Your task to perform on an android device: Open eBay Image 0: 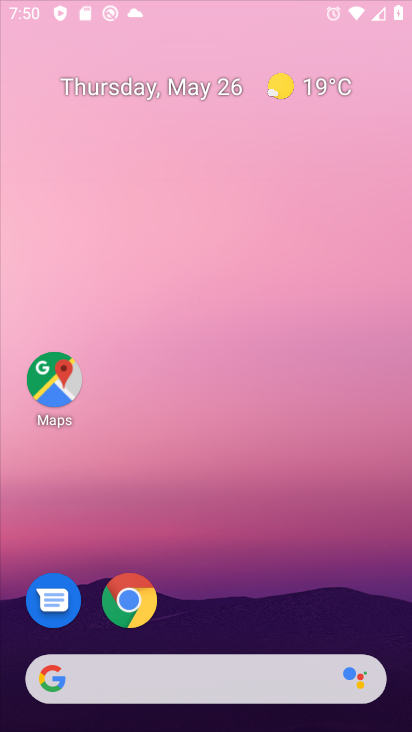
Step 0: press home button
Your task to perform on an android device: Open eBay Image 1: 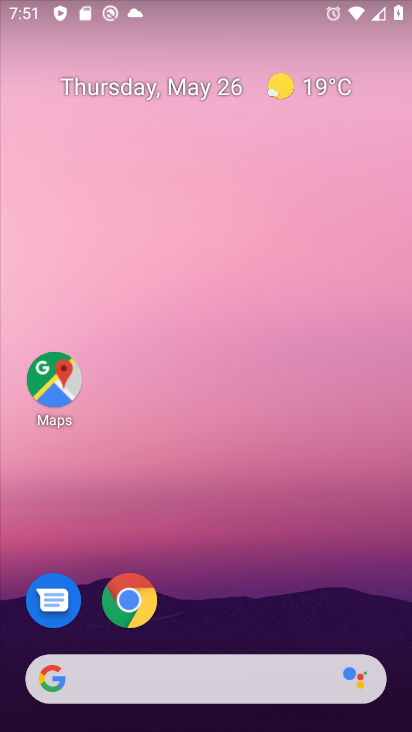
Step 1: click (48, 681)
Your task to perform on an android device: Open eBay Image 2: 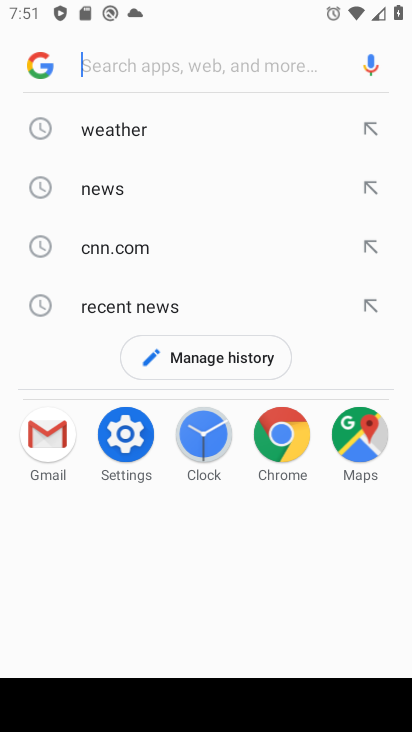
Step 2: type "eBay"
Your task to perform on an android device: Open eBay Image 3: 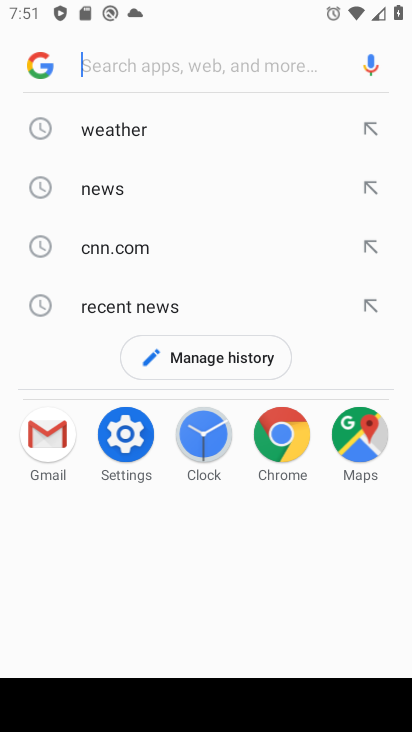
Step 3: click (167, 59)
Your task to perform on an android device: Open eBay Image 4: 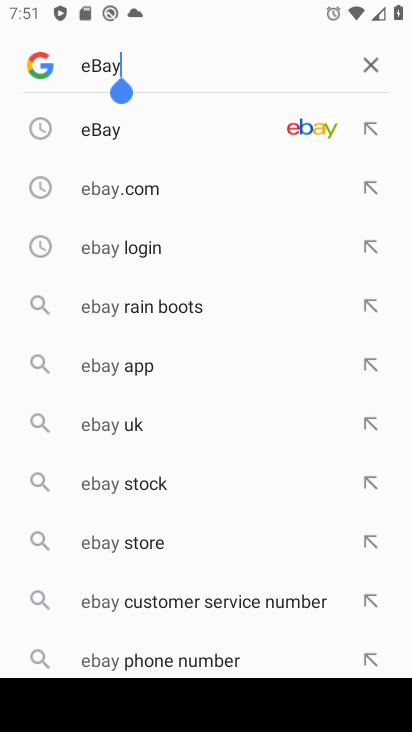
Step 4: click (92, 119)
Your task to perform on an android device: Open eBay Image 5: 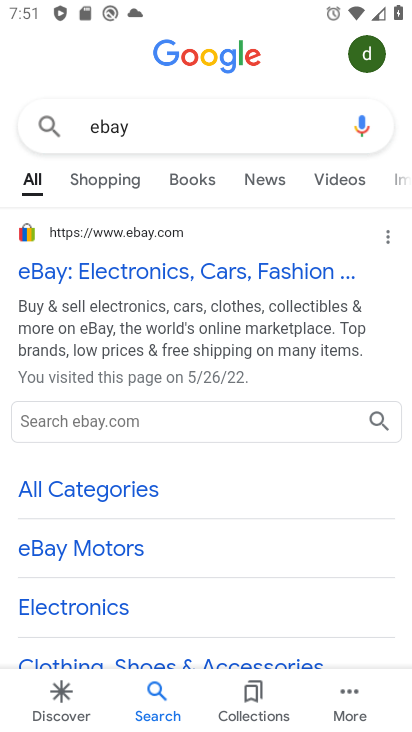
Step 5: click (173, 274)
Your task to perform on an android device: Open eBay Image 6: 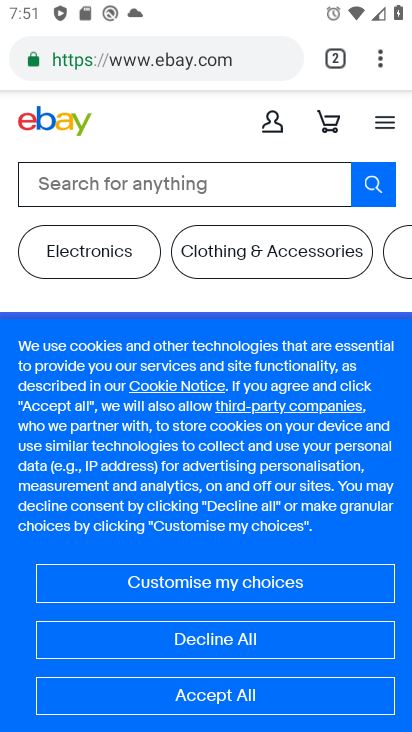
Step 6: task complete